Your task to perform on an android device: View the shopping cart on bestbuy. Search for dell xps on bestbuy, select the first entry, and add it to the cart. Image 0: 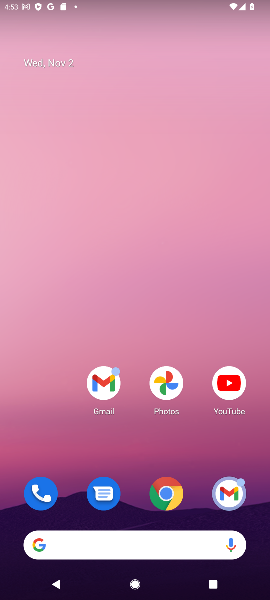
Step 0: drag from (70, 524) to (114, 222)
Your task to perform on an android device: View the shopping cart on bestbuy. Search for dell xps on bestbuy, select the first entry, and add it to the cart. Image 1: 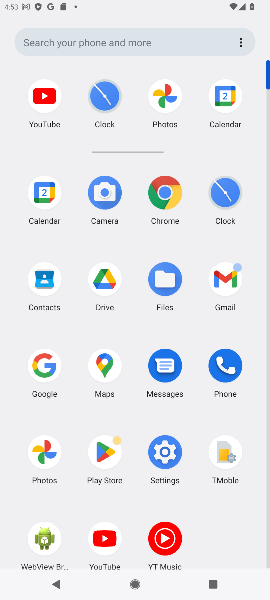
Step 1: click (49, 361)
Your task to perform on an android device: View the shopping cart on bestbuy. Search for dell xps on bestbuy, select the first entry, and add it to the cart. Image 2: 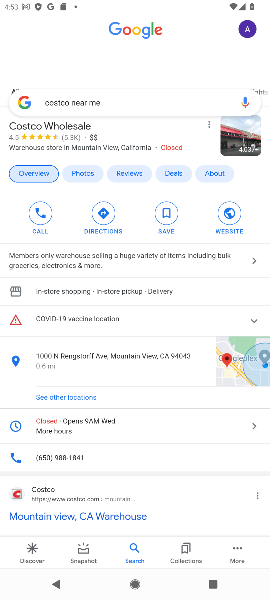
Step 2: click (99, 103)
Your task to perform on an android device: View the shopping cart on bestbuy. Search for dell xps on bestbuy, select the first entry, and add it to the cart. Image 3: 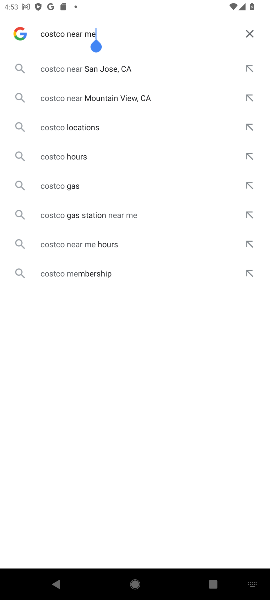
Step 3: click (249, 38)
Your task to perform on an android device: View the shopping cart on bestbuy. Search for dell xps on bestbuy, select the first entry, and add it to the cart. Image 4: 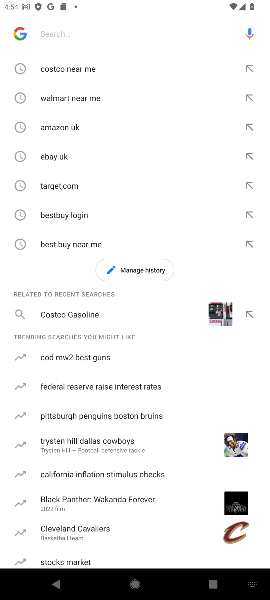
Step 4: click (62, 31)
Your task to perform on an android device: View the shopping cart on bestbuy. Search for dell xps on bestbuy, select the first entry, and add it to the cart. Image 5: 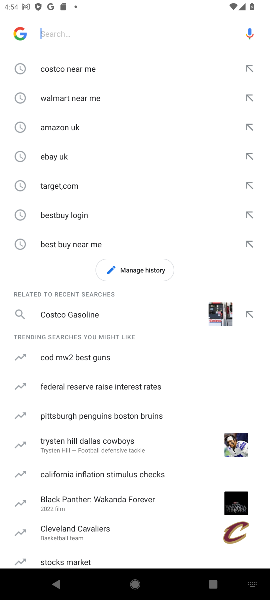
Step 5: type ""
Your task to perform on an android device: View the shopping cart on bestbuy. Search for dell xps on bestbuy, select the first entry, and add it to the cart. Image 6: 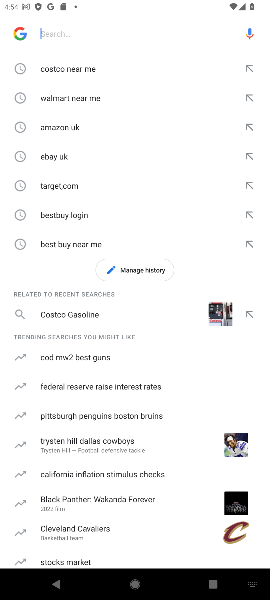
Step 6: type "bestbuy "
Your task to perform on an android device: View the shopping cart on bestbuy. Search for dell xps on bestbuy, select the first entry, and add it to the cart. Image 7: 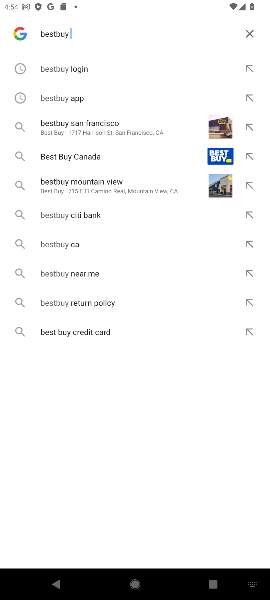
Step 7: click (68, 68)
Your task to perform on an android device: View the shopping cart on bestbuy. Search for dell xps on bestbuy, select the first entry, and add it to the cart. Image 8: 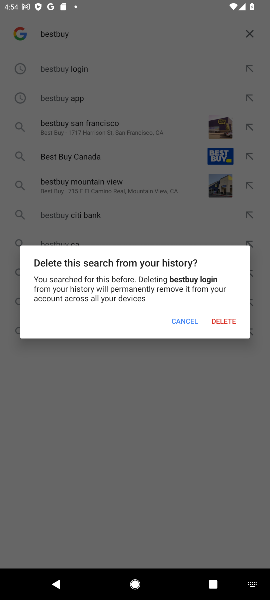
Step 8: click (60, 110)
Your task to perform on an android device: View the shopping cart on bestbuy. Search for dell xps on bestbuy, select the first entry, and add it to the cart. Image 9: 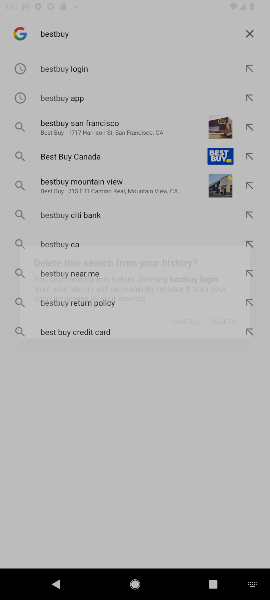
Step 9: click (60, 97)
Your task to perform on an android device: View the shopping cart on bestbuy. Search for dell xps on bestbuy, select the first entry, and add it to the cart. Image 10: 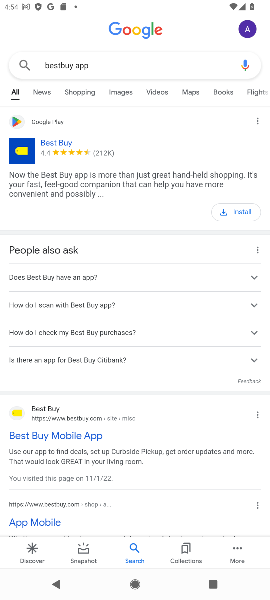
Step 10: click (19, 406)
Your task to perform on an android device: View the shopping cart on bestbuy. Search for dell xps on bestbuy, select the first entry, and add it to the cart. Image 11: 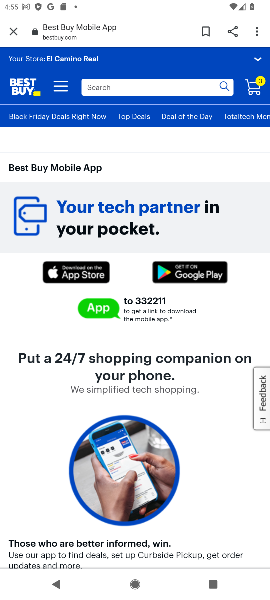
Step 11: click (136, 85)
Your task to perform on an android device: View the shopping cart on bestbuy. Search for dell xps on bestbuy, select the first entry, and add it to the cart. Image 12: 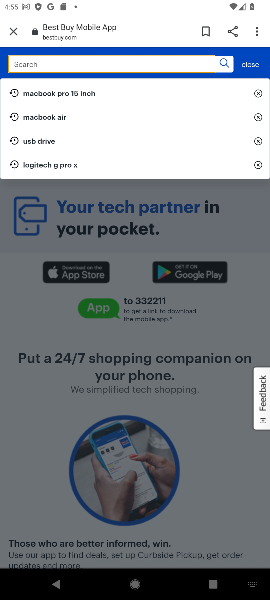
Step 12: click (79, 58)
Your task to perform on an android device: View the shopping cart on bestbuy. Search for dell xps on bestbuy, select the first entry, and add it to the cart. Image 13: 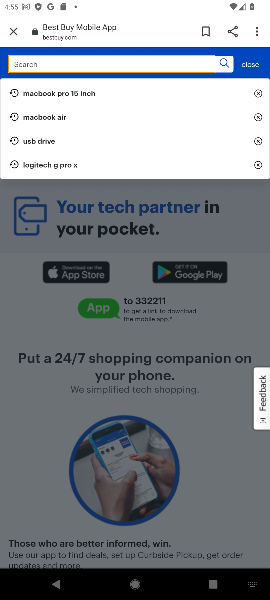
Step 13: click (79, 58)
Your task to perform on an android device: View the shopping cart on bestbuy. Search for dell xps on bestbuy, select the first entry, and add it to the cart. Image 14: 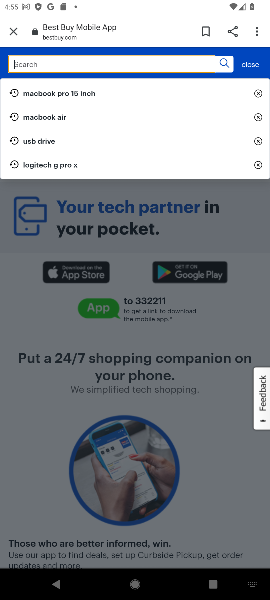
Step 14: type "dell xps  "
Your task to perform on an android device: View the shopping cart on bestbuy. Search for dell xps on bestbuy, select the first entry, and add it to the cart. Image 15: 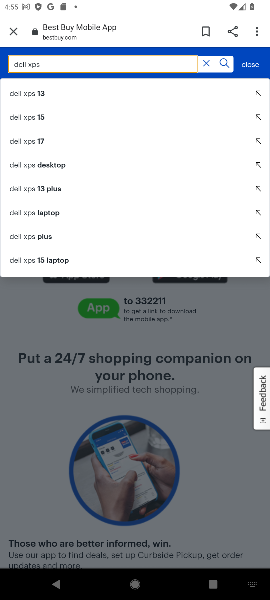
Step 15: click (31, 97)
Your task to perform on an android device: View the shopping cart on bestbuy. Search for dell xps on bestbuy, select the first entry, and add it to the cart. Image 16: 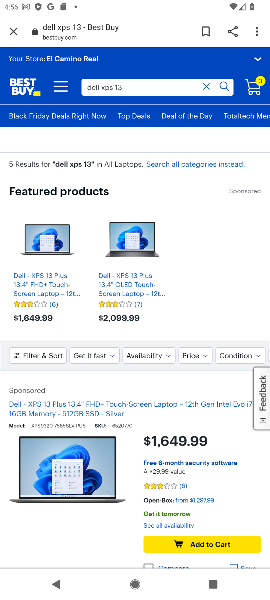
Step 16: drag from (98, 438) to (123, 315)
Your task to perform on an android device: View the shopping cart on bestbuy. Search for dell xps on bestbuy, select the first entry, and add it to the cart. Image 17: 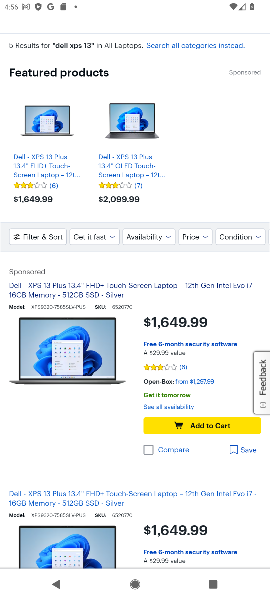
Step 17: click (168, 424)
Your task to perform on an android device: View the shopping cart on bestbuy. Search for dell xps on bestbuy, select the first entry, and add it to the cart. Image 18: 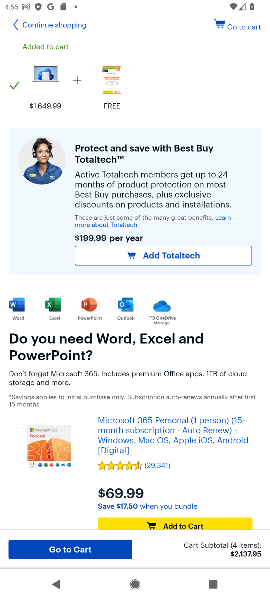
Step 18: task complete